Your task to perform on an android device: turn off smart reply in the gmail app Image 0: 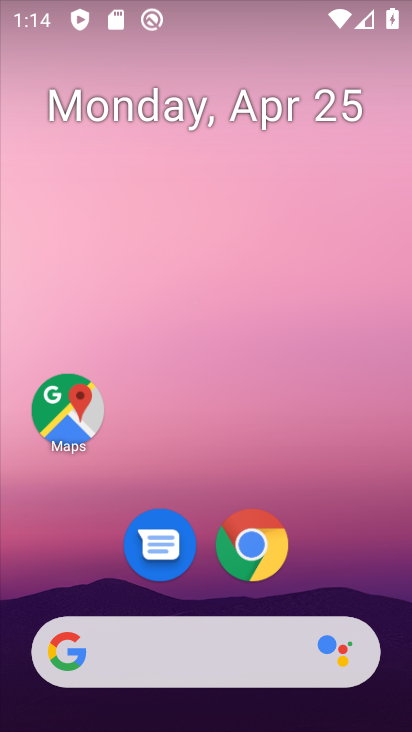
Step 0: drag from (305, 506) to (297, 140)
Your task to perform on an android device: turn off smart reply in the gmail app Image 1: 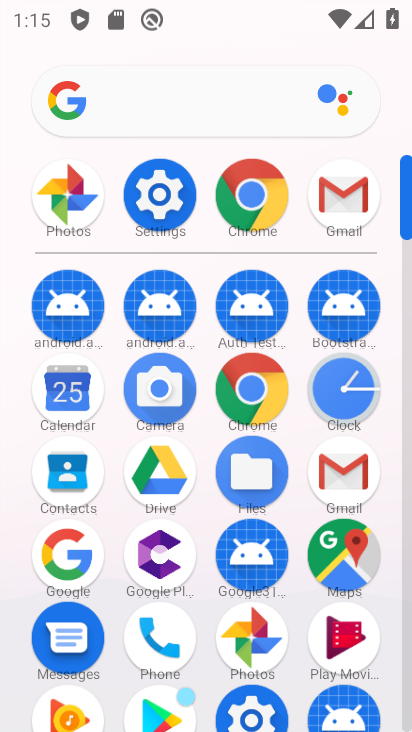
Step 1: click (348, 204)
Your task to perform on an android device: turn off smart reply in the gmail app Image 2: 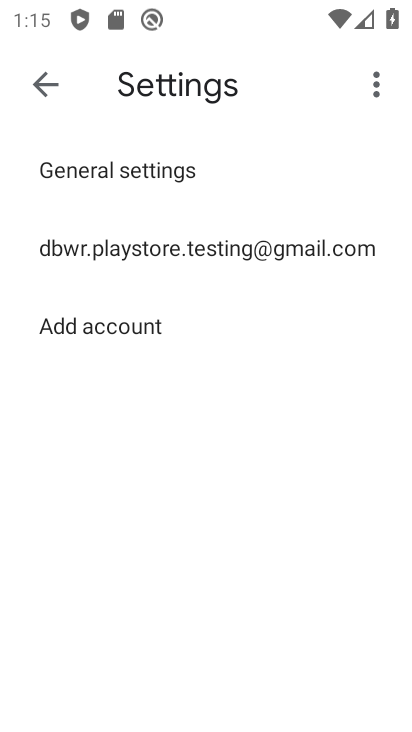
Step 2: click (174, 243)
Your task to perform on an android device: turn off smart reply in the gmail app Image 3: 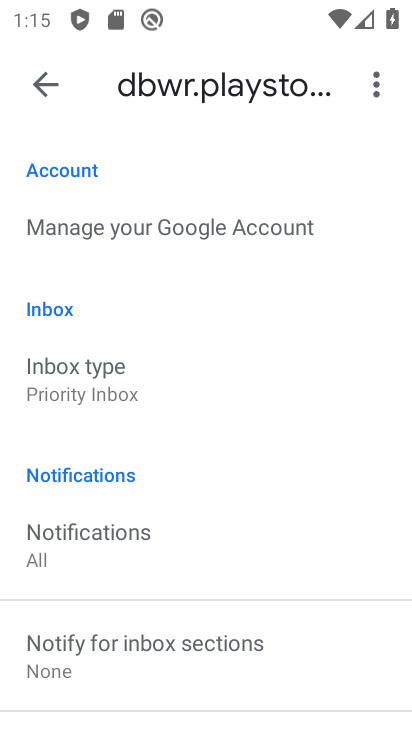
Step 3: drag from (214, 521) to (219, 236)
Your task to perform on an android device: turn off smart reply in the gmail app Image 4: 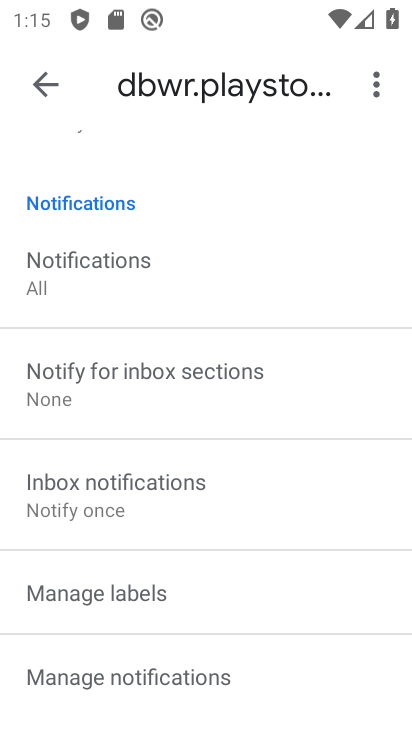
Step 4: drag from (270, 606) to (307, 328)
Your task to perform on an android device: turn off smart reply in the gmail app Image 5: 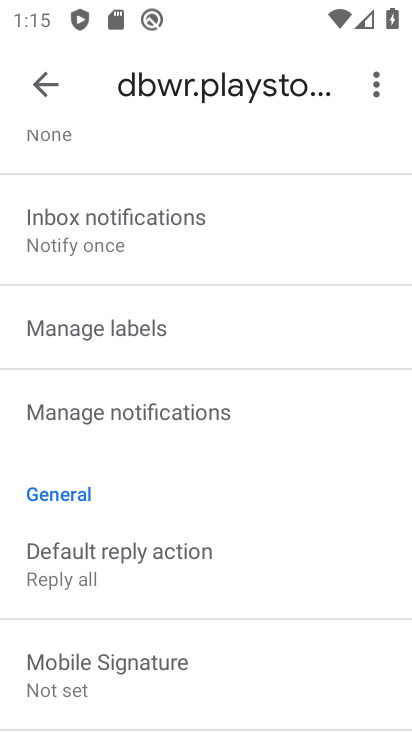
Step 5: drag from (302, 631) to (286, 254)
Your task to perform on an android device: turn off smart reply in the gmail app Image 6: 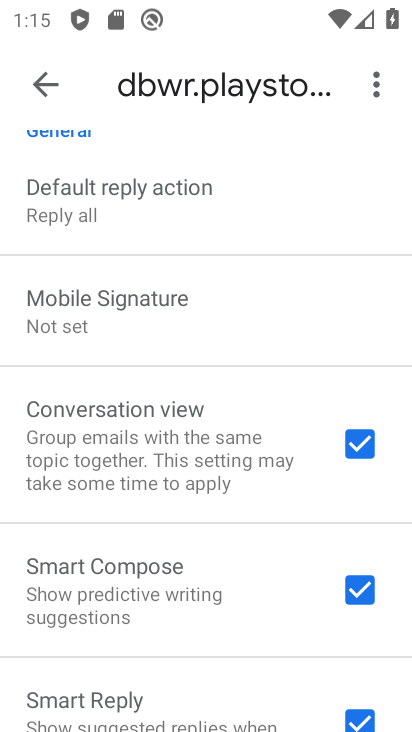
Step 6: drag from (290, 647) to (286, 394)
Your task to perform on an android device: turn off smart reply in the gmail app Image 7: 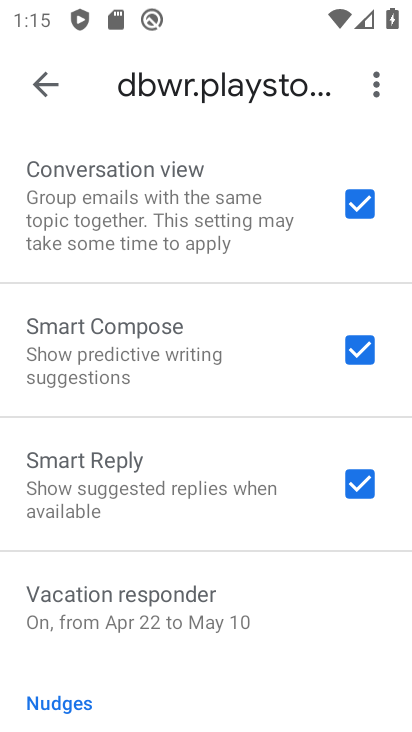
Step 7: click (357, 479)
Your task to perform on an android device: turn off smart reply in the gmail app Image 8: 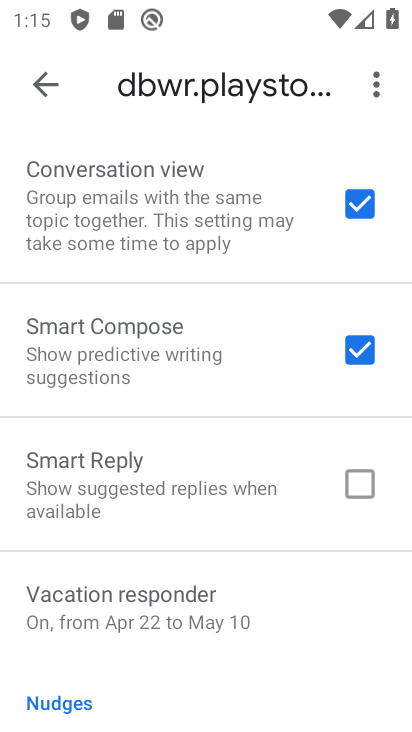
Step 8: task complete